Your task to perform on an android device: Search for hotels in Atlanta Image 0: 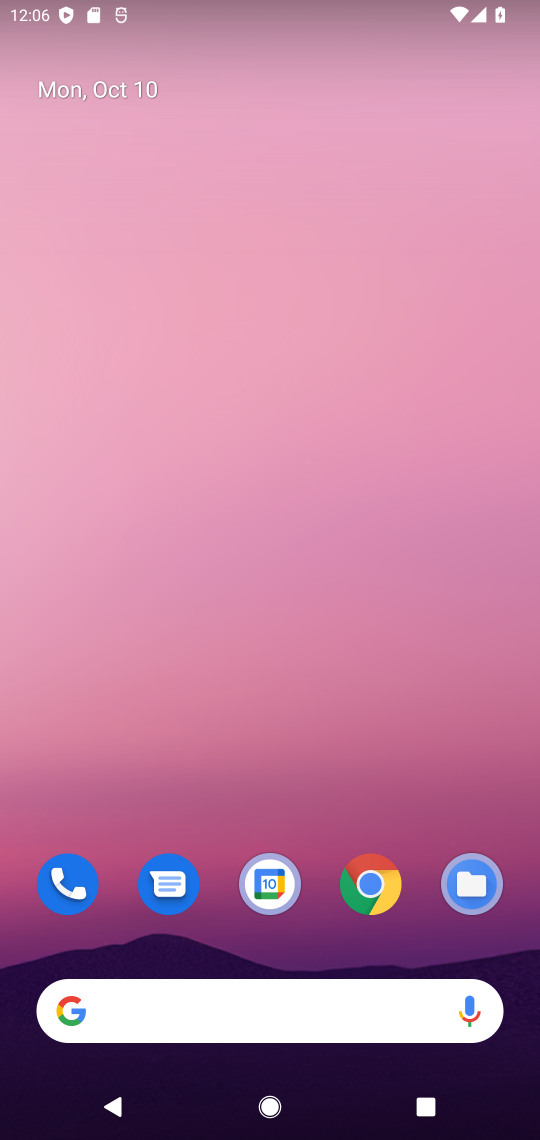
Step 0: click (377, 883)
Your task to perform on an android device: Search for hotels in Atlanta Image 1: 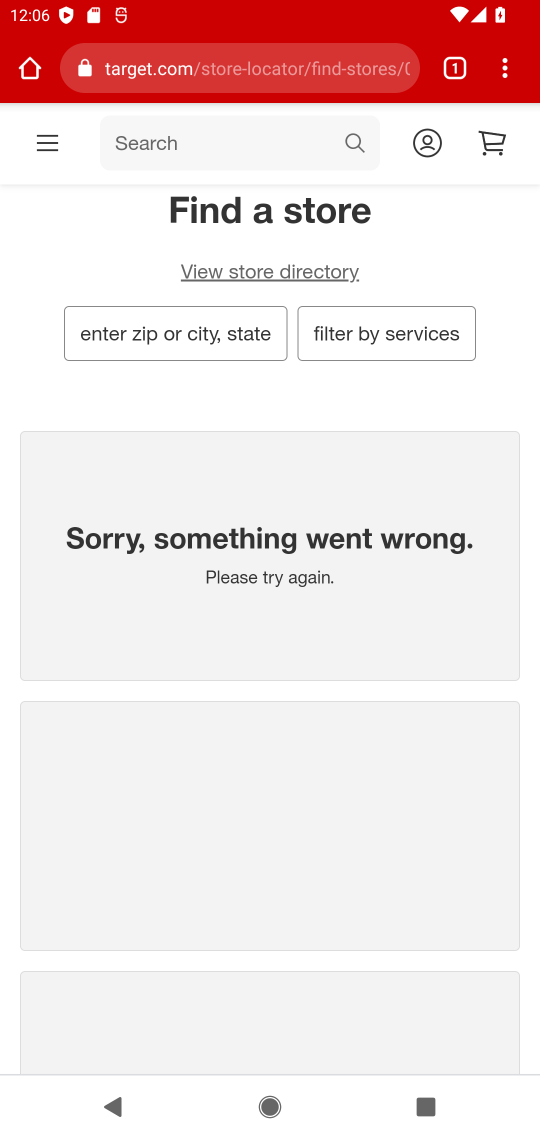
Step 1: click (202, 59)
Your task to perform on an android device: Search for hotels in Atlanta Image 2: 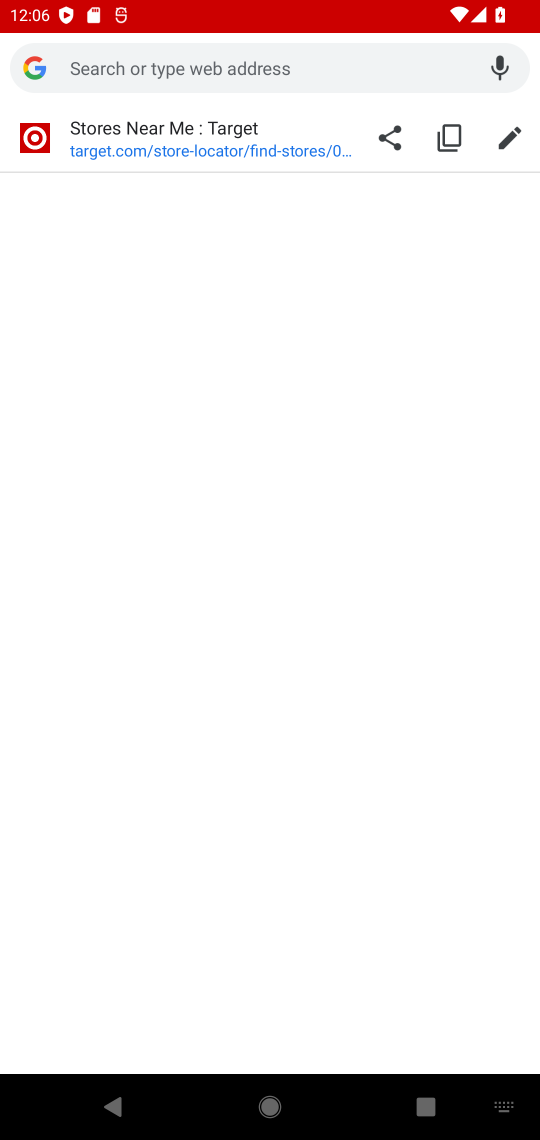
Step 2: type "hotels in Atlanta"
Your task to perform on an android device: Search for hotels in Atlanta Image 3: 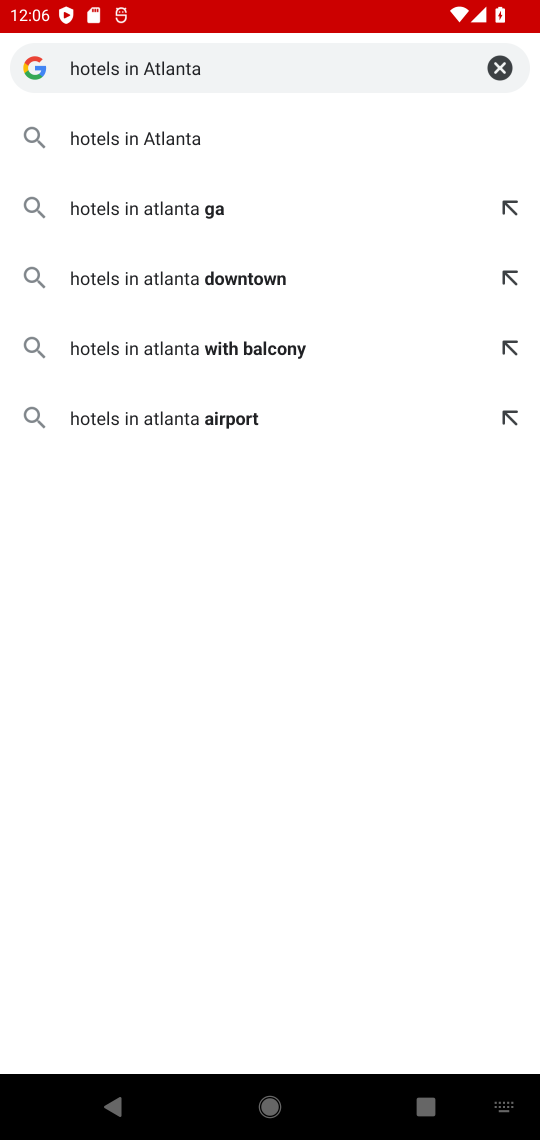
Step 3: press enter
Your task to perform on an android device: Search for hotels in Atlanta Image 4: 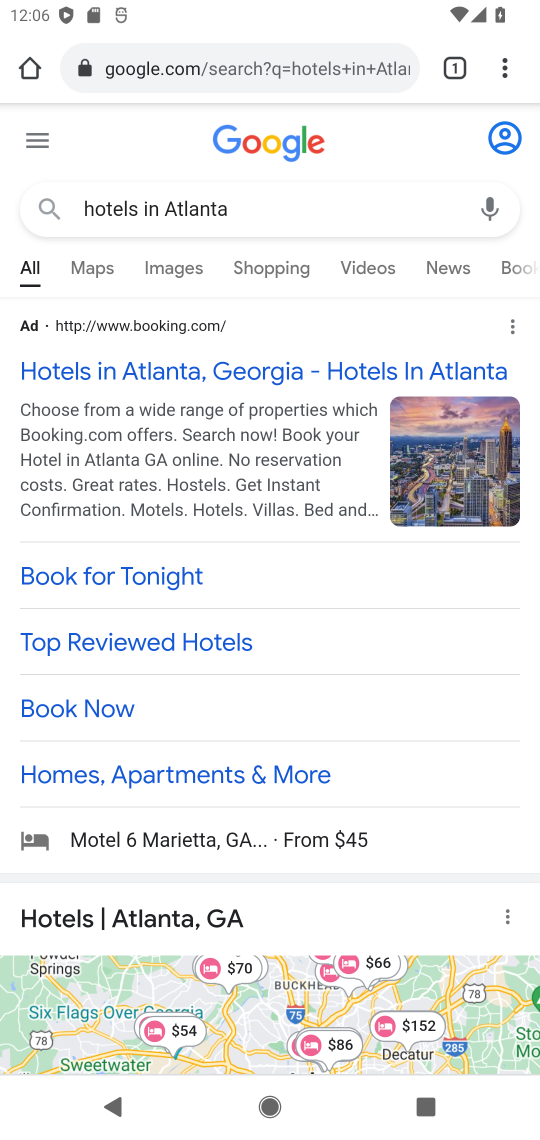
Step 4: click (128, 391)
Your task to perform on an android device: Search for hotels in Atlanta Image 5: 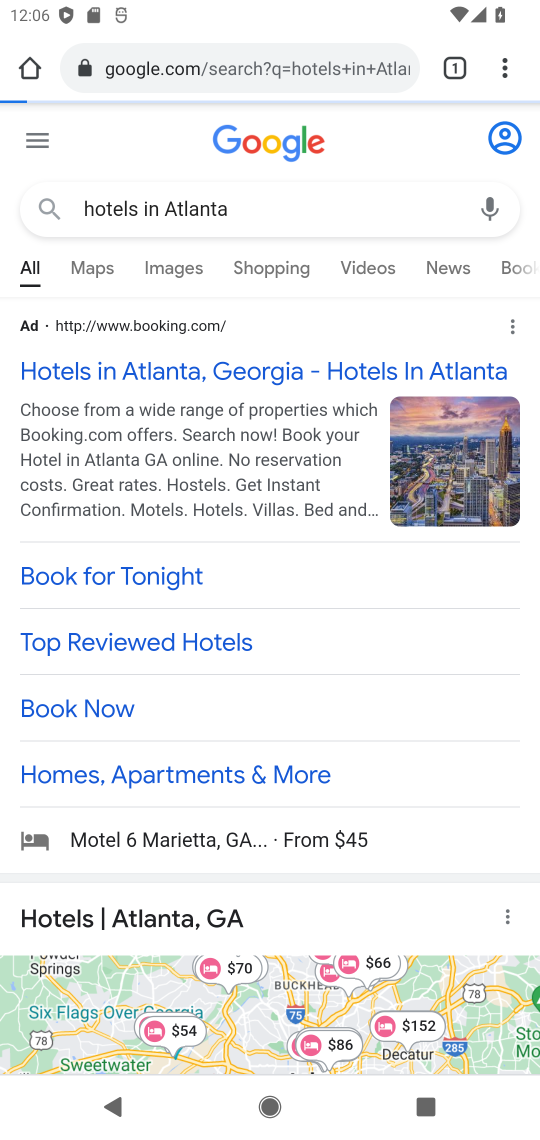
Step 5: click (134, 383)
Your task to perform on an android device: Search for hotels in Atlanta Image 6: 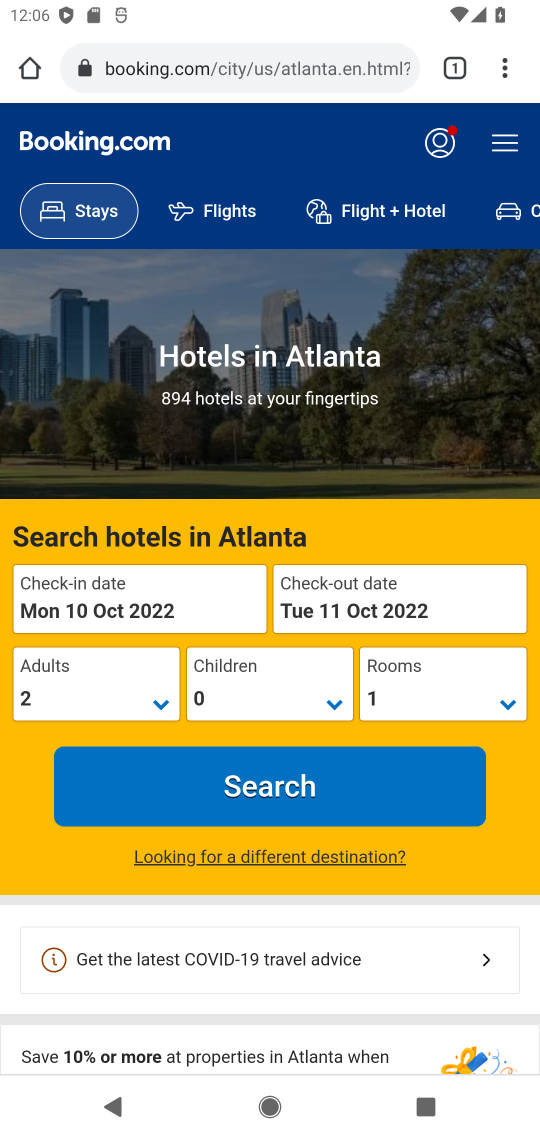
Step 6: task complete